Your task to perform on an android device: turn off javascript in the chrome app Image 0: 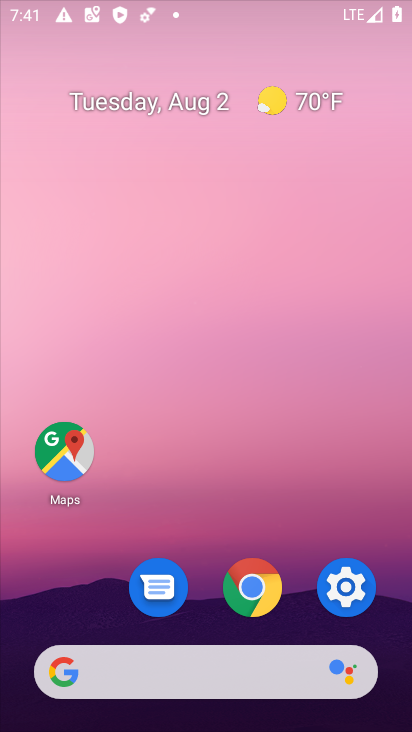
Step 0: click (344, 553)
Your task to perform on an android device: turn off javascript in the chrome app Image 1: 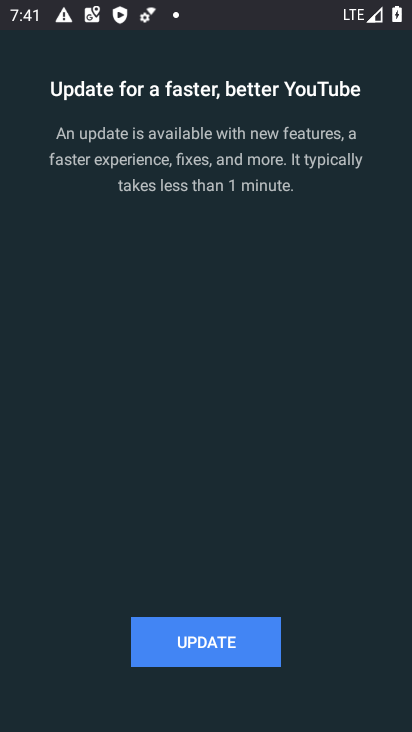
Step 1: press home button
Your task to perform on an android device: turn off javascript in the chrome app Image 2: 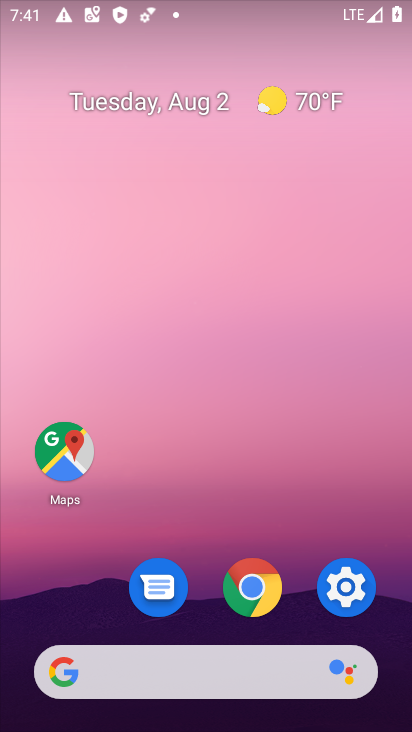
Step 2: click (353, 591)
Your task to perform on an android device: turn off javascript in the chrome app Image 3: 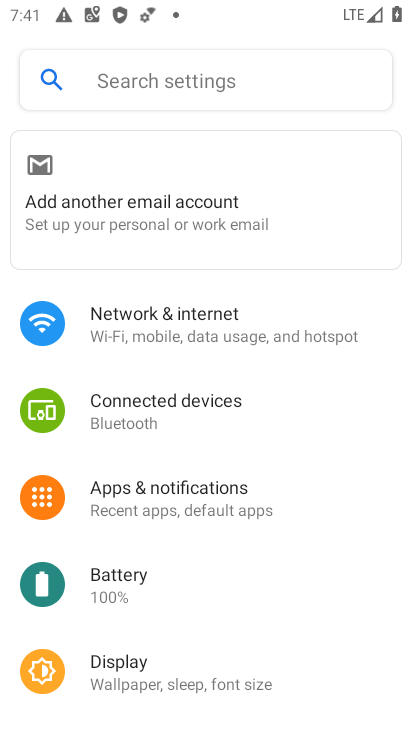
Step 3: press home button
Your task to perform on an android device: turn off javascript in the chrome app Image 4: 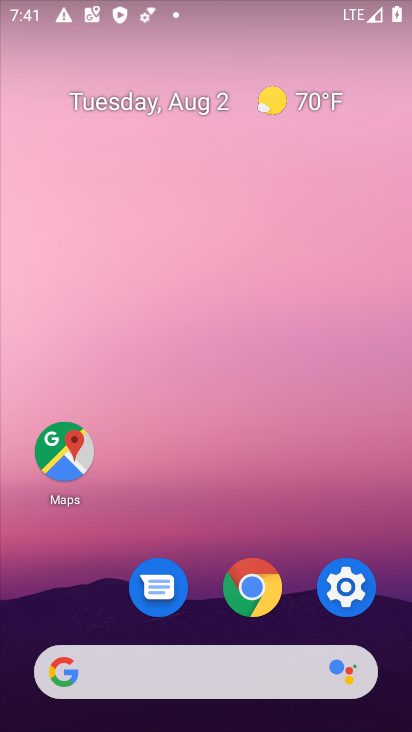
Step 4: click (242, 584)
Your task to perform on an android device: turn off javascript in the chrome app Image 5: 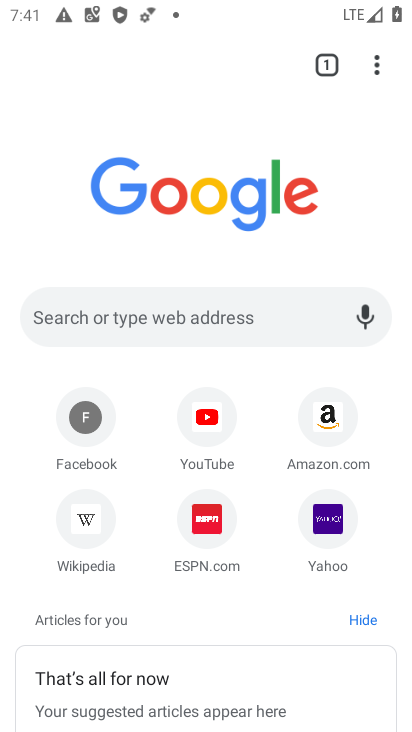
Step 5: click (389, 71)
Your task to perform on an android device: turn off javascript in the chrome app Image 6: 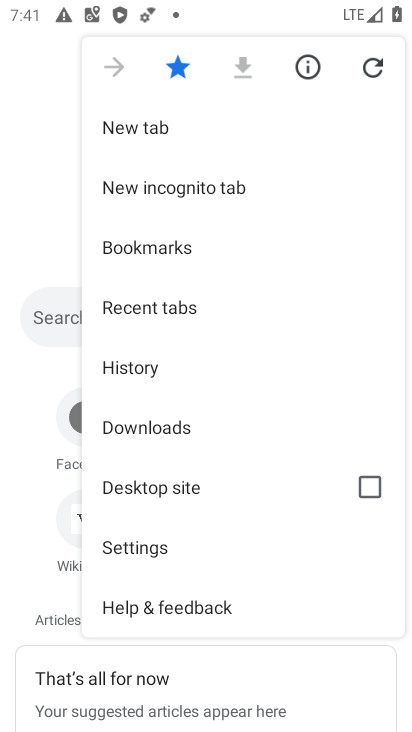
Step 6: click (153, 551)
Your task to perform on an android device: turn off javascript in the chrome app Image 7: 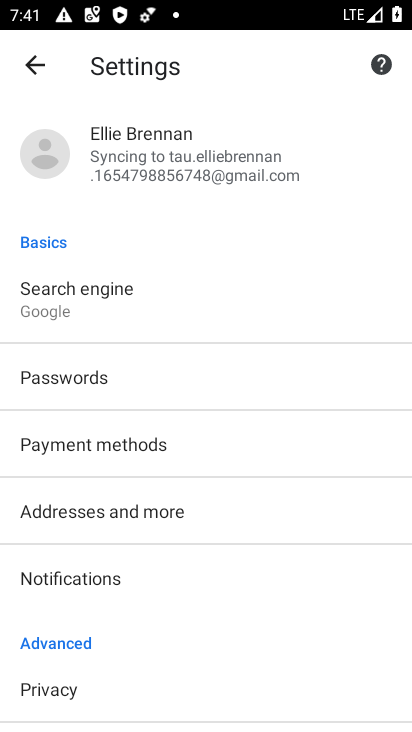
Step 7: drag from (138, 670) to (109, 488)
Your task to perform on an android device: turn off javascript in the chrome app Image 8: 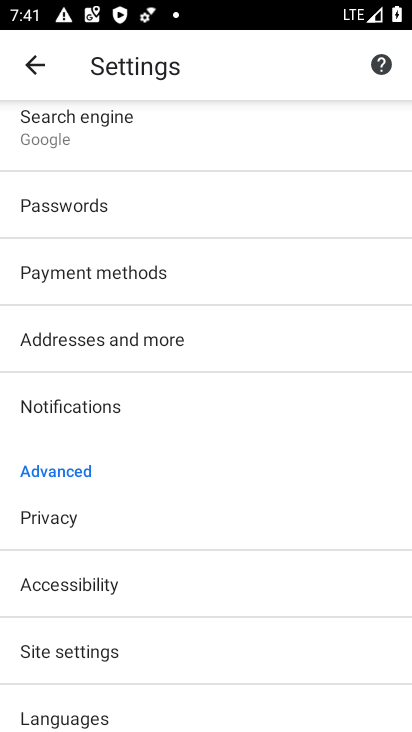
Step 8: click (71, 639)
Your task to perform on an android device: turn off javascript in the chrome app Image 9: 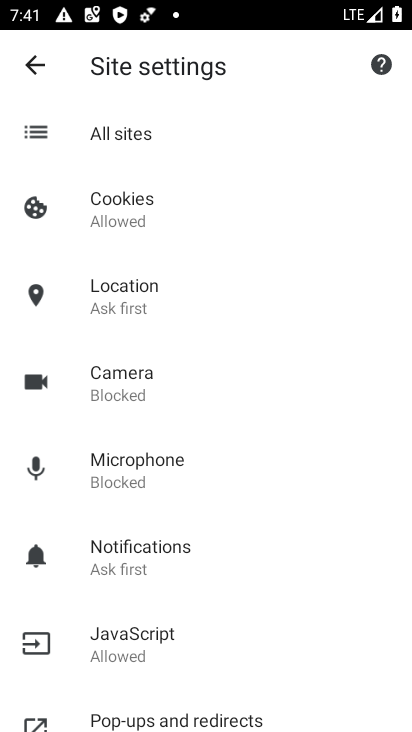
Step 9: click (155, 640)
Your task to perform on an android device: turn off javascript in the chrome app Image 10: 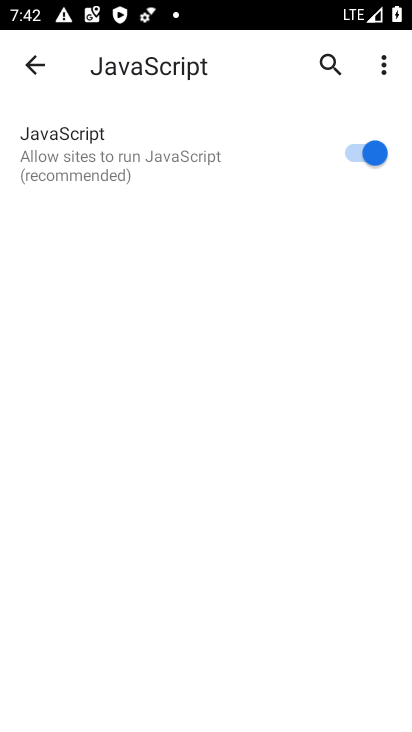
Step 10: click (273, 144)
Your task to perform on an android device: turn off javascript in the chrome app Image 11: 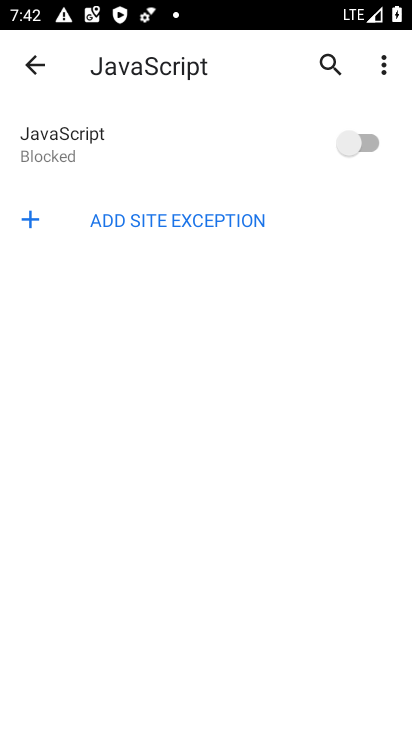
Step 11: task complete